Your task to perform on an android device: Open settings Image 0: 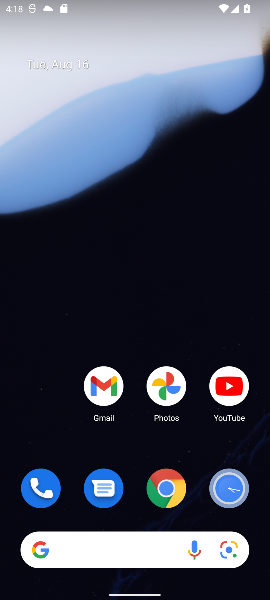
Step 0: drag from (55, 427) to (101, 61)
Your task to perform on an android device: Open settings Image 1: 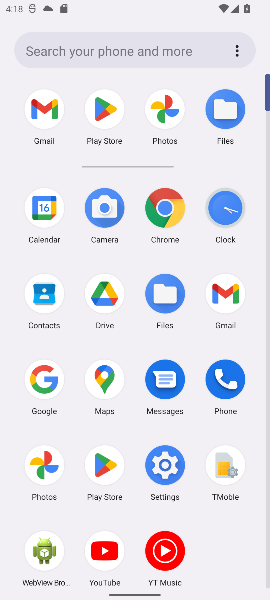
Step 1: click (167, 470)
Your task to perform on an android device: Open settings Image 2: 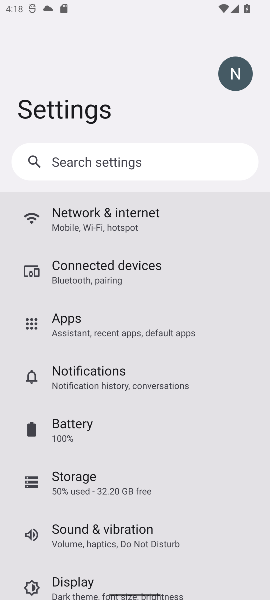
Step 2: task complete